Your task to perform on an android device: Go to calendar. Show me events next week Image 0: 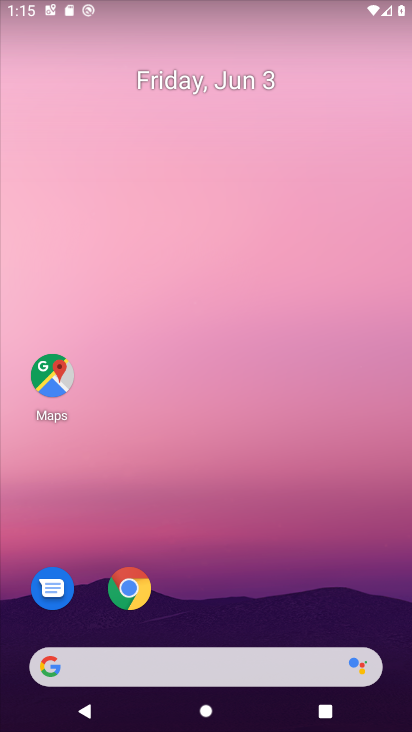
Step 0: drag from (263, 646) to (322, 54)
Your task to perform on an android device: Go to calendar. Show me events next week Image 1: 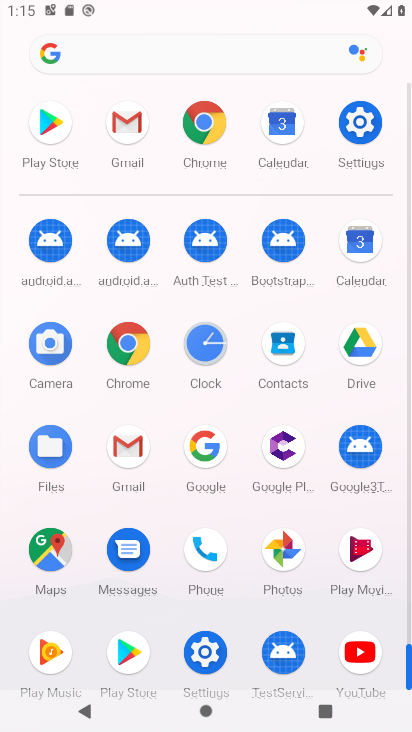
Step 1: click (374, 243)
Your task to perform on an android device: Go to calendar. Show me events next week Image 2: 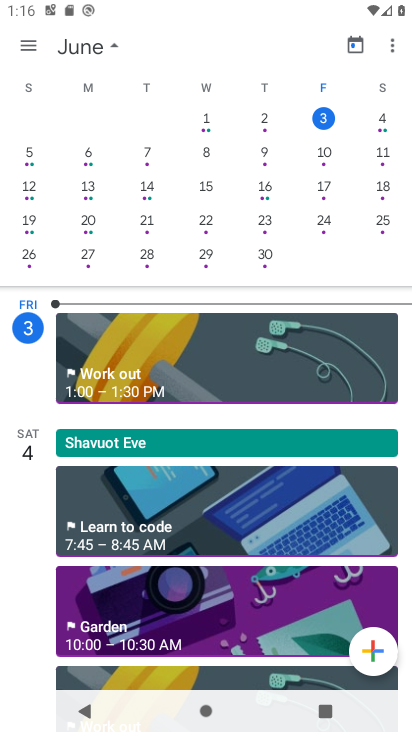
Step 2: task complete